Your task to perform on an android device: open wifi settings Image 0: 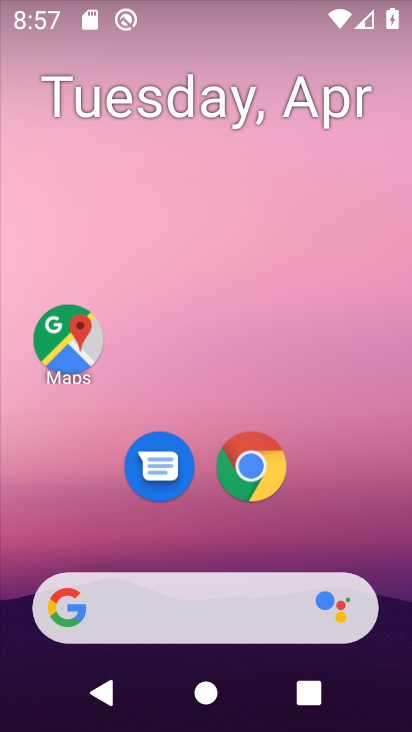
Step 0: drag from (313, 534) to (282, 135)
Your task to perform on an android device: open wifi settings Image 1: 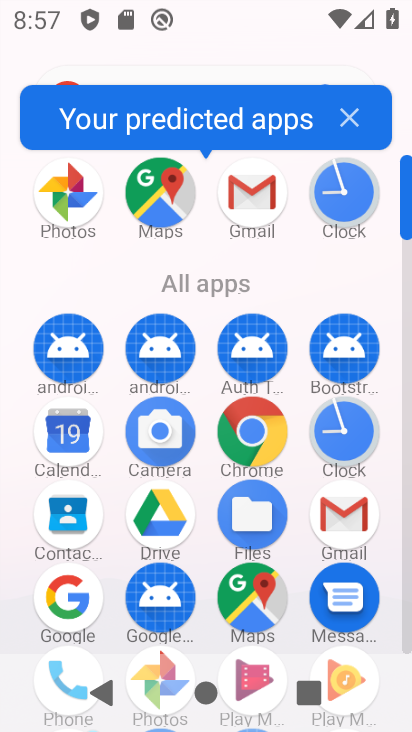
Step 1: click (405, 344)
Your task to perform on an android device: open wifi settings Image 2: 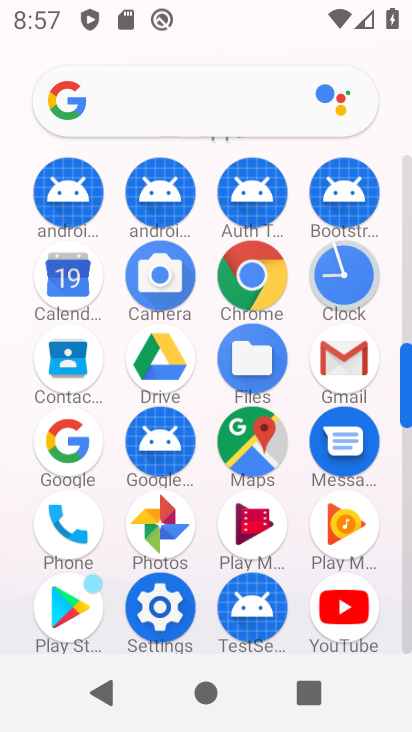
Step 2: click (158, 607)
Your task to perform on an android device: open wifi settings Image 3: 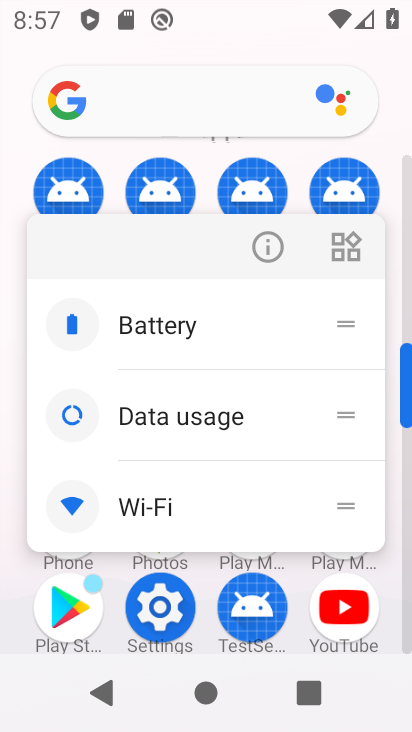
Step 3: click (136, 519)
Your task to perform on an android device: open wifi settings Image 4: 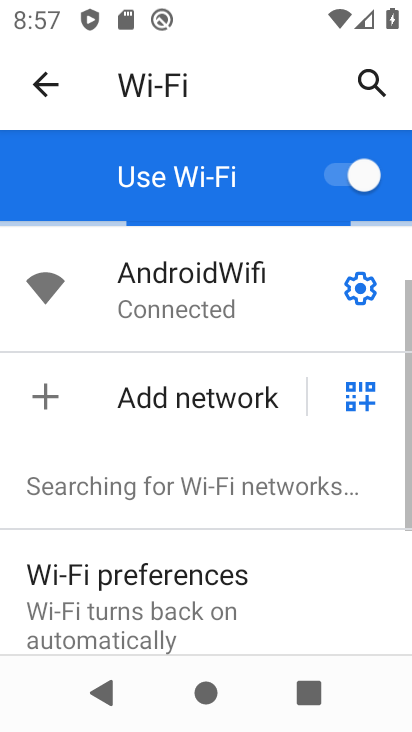
Step 4: click (179, 293)
Your task to perform on an android device: open wifi settings Image 5: 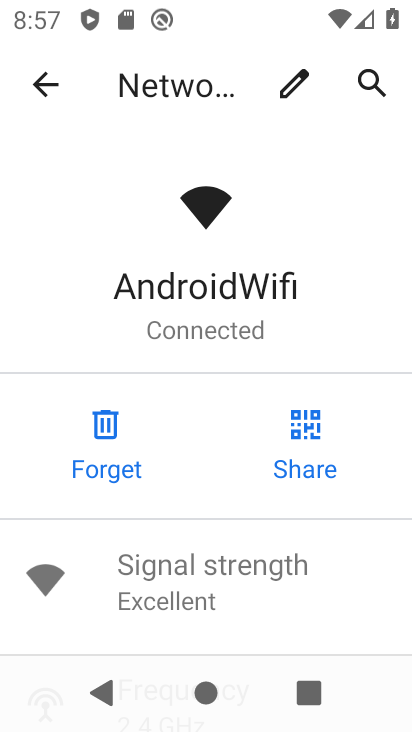
Step 5: task complete